Your task to perform on an android device: open device folders in google photos Image 0: 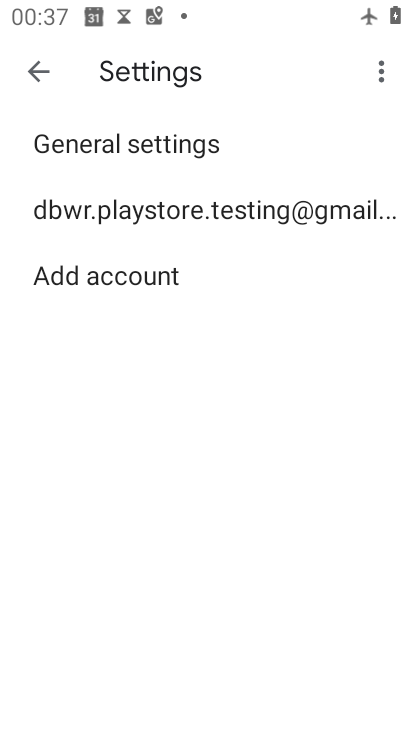
Step 0: click (163, 198)
Your task to perform on an android device: open device folders in google photos Image 1: 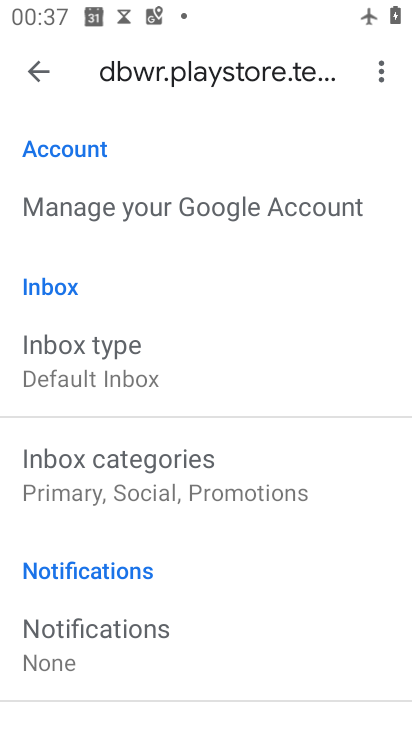
Step 1: press home button
Your task to perform on an android device: open device folders in google photos Image 2: 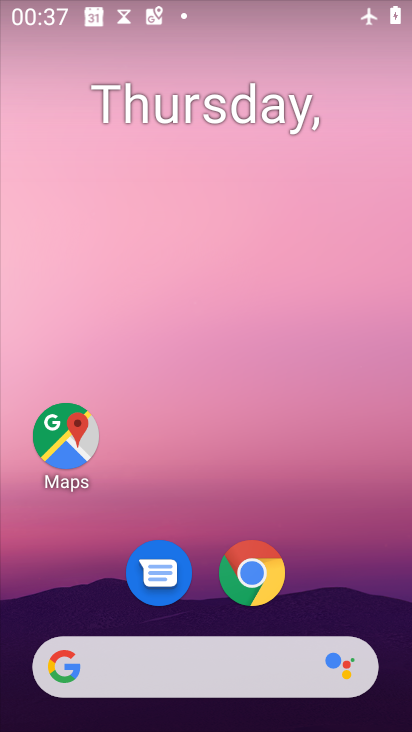
Step 2: drag from (323, 565) to (341, 272)
Your task to perform on an android device: open device folders in google photos Image 3: 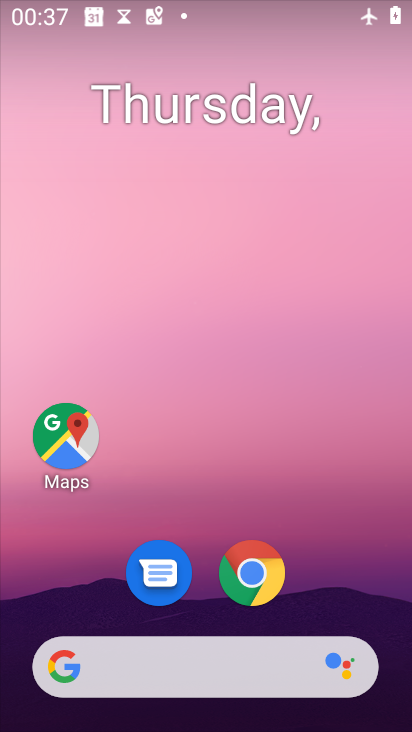
Step 3: drag from (308, 540) to (336, 300)
Your task to perform on an android device: open device folders in google photos Image 4: 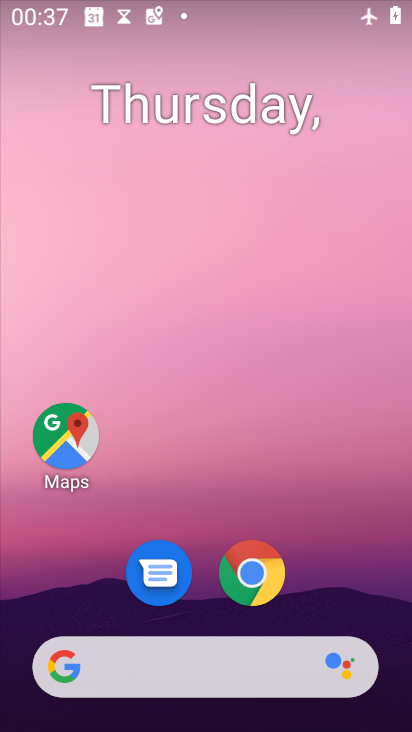
Step 4: drag from (293, 583) to (312, 237)
Your task to perform on an android device: open device folders in google photos Image 5: 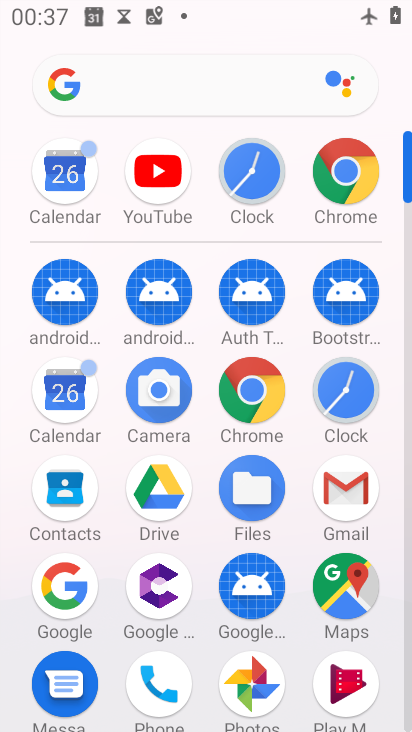
Step 5: click (242, 685)
Your task to perform on an android device: open device folders in google photos Image 6: 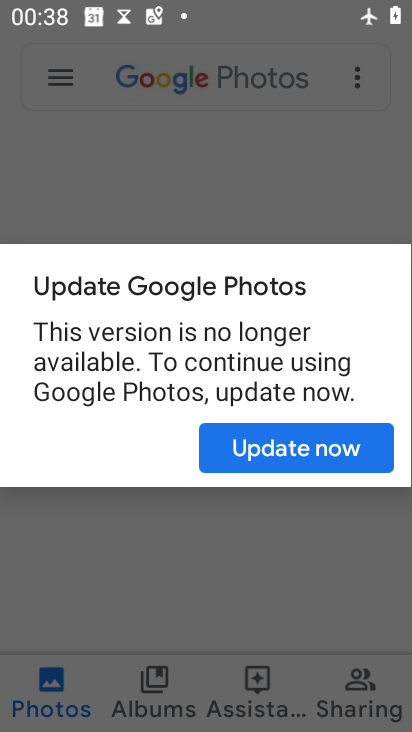
Step 6: click (272, 434)
Your task to perform on an android device: open device folders in google photos Image 7: 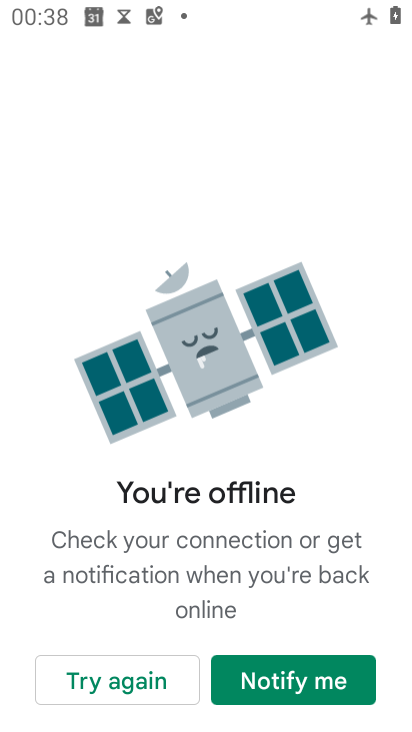
Step 7: press back button
Your task to perform on an android device: open device folders in google photos Image 8: 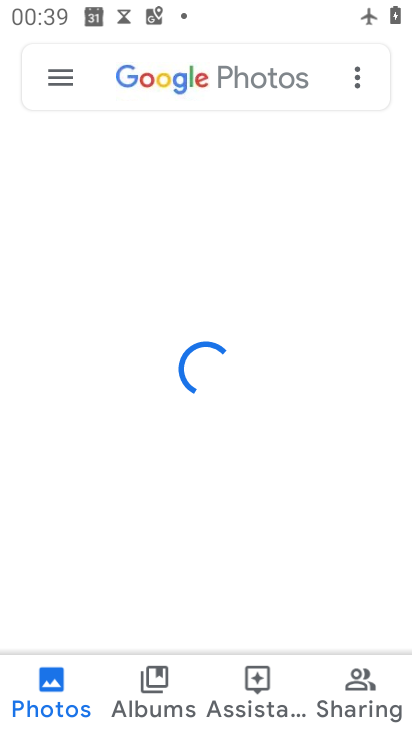
Step 8: click (150, 687)
Your task to perform on an android device: open device folders in google photos Image 9: 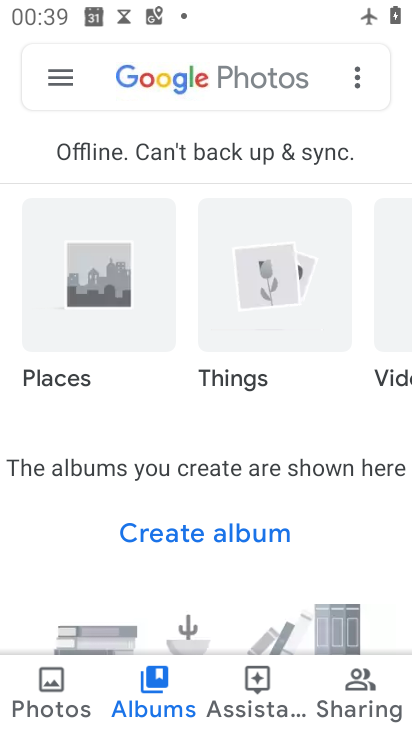
Step 9: click (42, 674)
Your task to perform on an android device: open device folders in google photos Image 10: 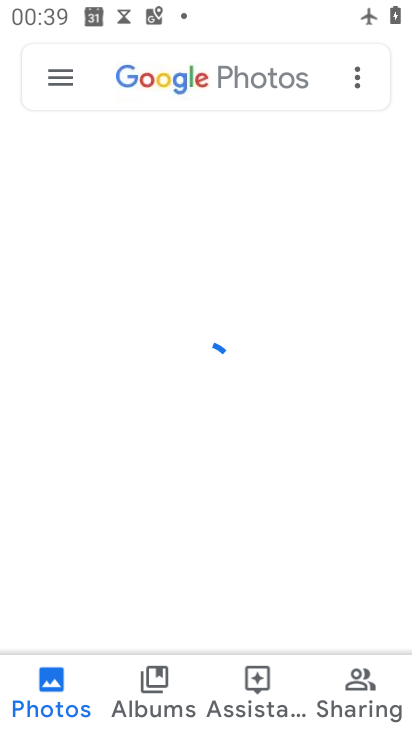
Step 10: task complete